Your task to perform on an android device: Search for seafood restaurants on Google Maps Image 0: 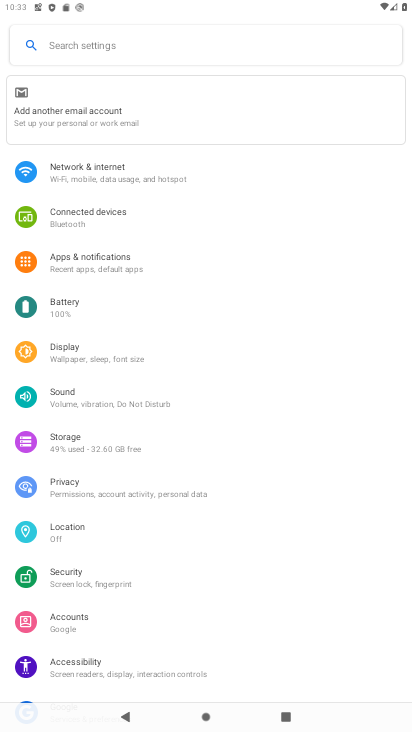
Step 0: press home button
Your task to perform on an android device: Search for seafood restaurants on Google Maps Image 1: 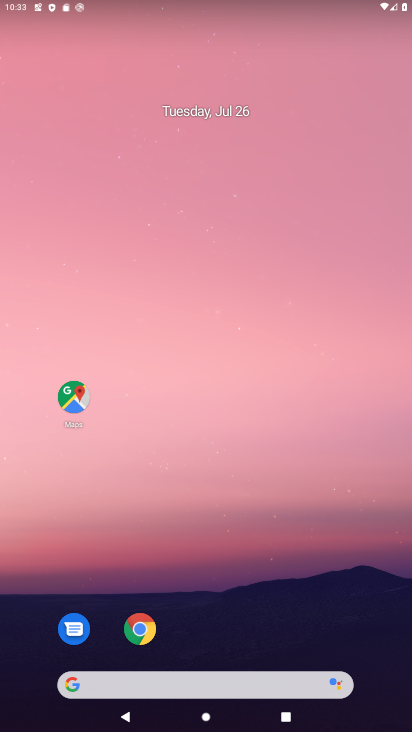
Step 1: drag from (236, 638) to (235, 191)
Your task to perform on an android device: Search for seafood restaurants on Google Maps Image 2: 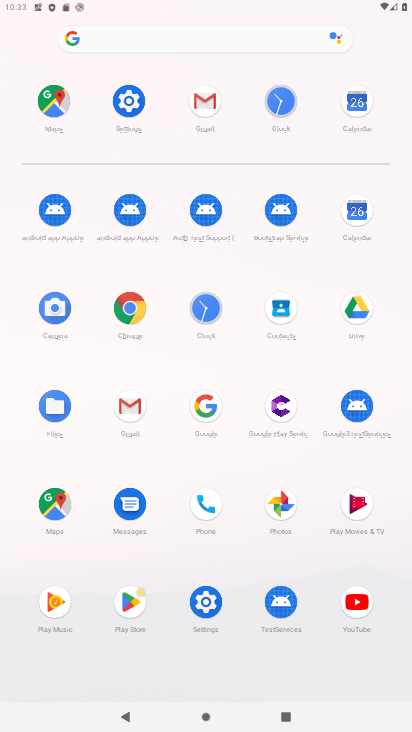
Step 2: click (58, 102)
Your task to perform on an android device: Search for seafood restaurants on Google Maps Image 3: 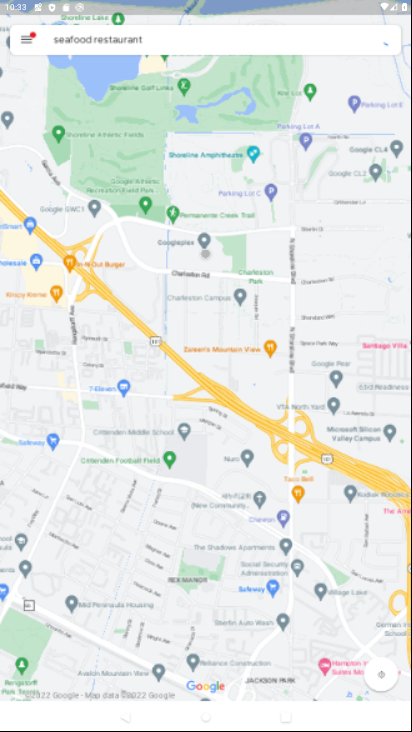
Step 3: task complete